Your task to perform on an android device: clear all cookies in the chrome app Image 0: 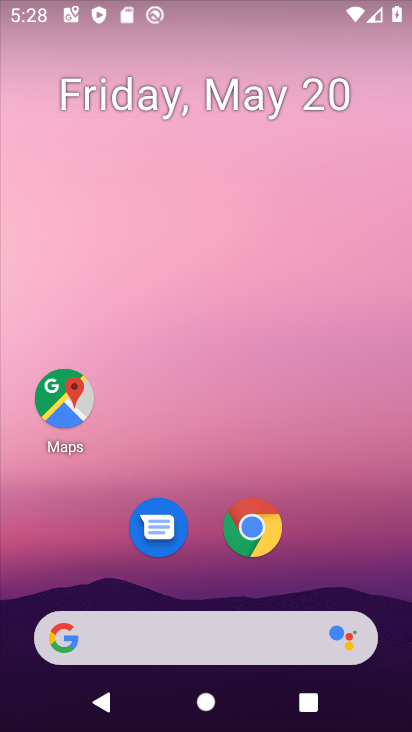
Step 0: drag from (317, 620) to (362, 43)
Your task to perform on an android device: clear all cookies in the chrome app Image 1: 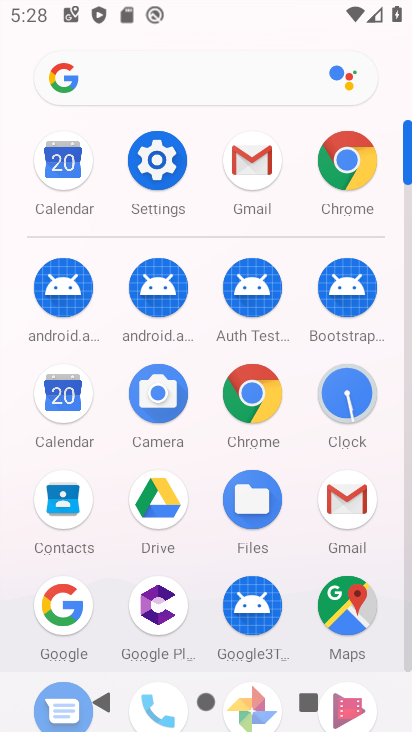
Step 1: click (260, 404)
Your task to perform on an android device: clear all cookies in the chrome app Image 2: 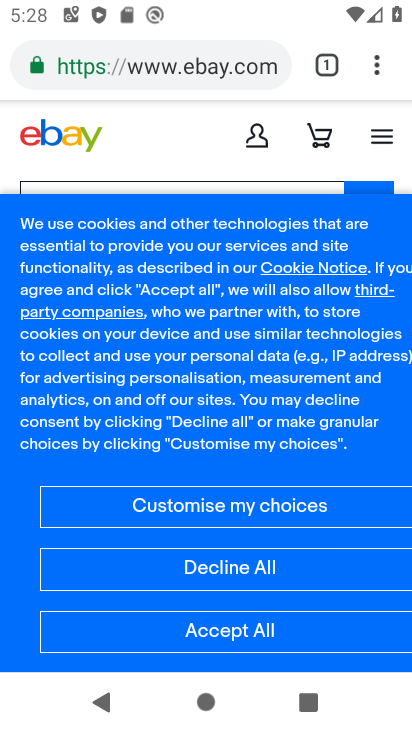
Step 2: press back button
Your task to perform on an android device: clear all cookies in the chrome app Image 3: 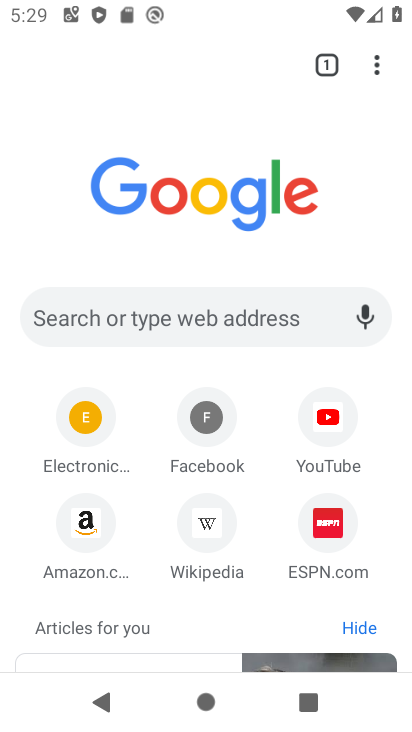
Step 3: drag from (375, 64) to (185, 543)
Your task to perform on an android device: clear all cookies in the chrome app Image 4: 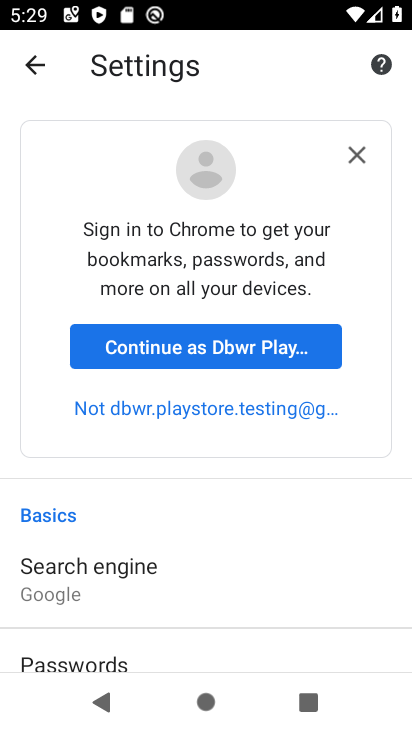
Step 4: drag from (222, 613) to (227, 106)
Your task to perform on an android device: clear all cookies in the chrome app Image 5: 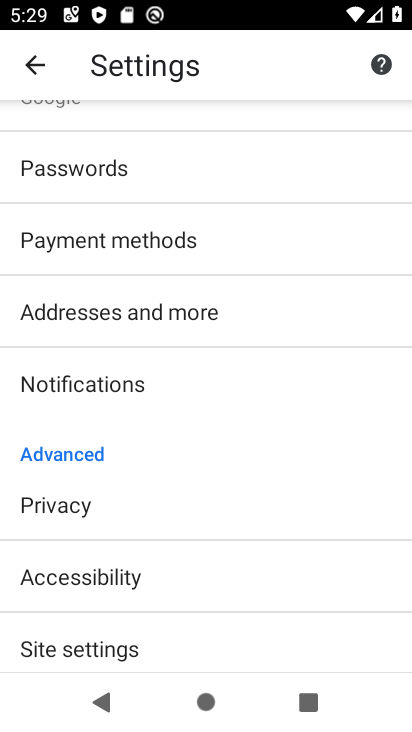
Step 5: click (150, 521)
Your task to perform on an android device: clear all cookies in the chrome app Image 6: 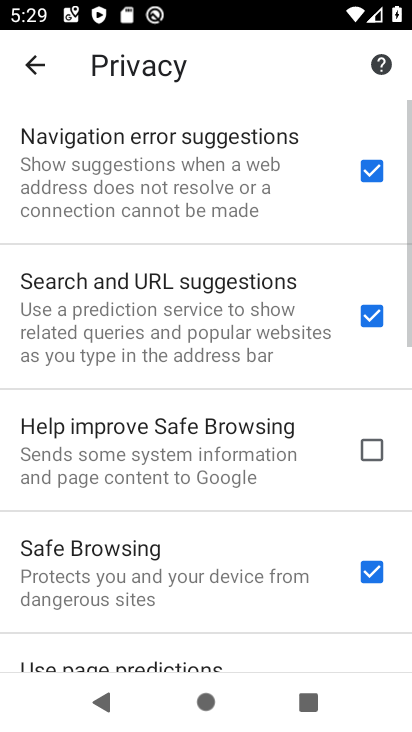
Step 6: drag from (226, 625) to (241, 150)
Your task to perform on an android device: clear all cookies in the chrome app Image 7: 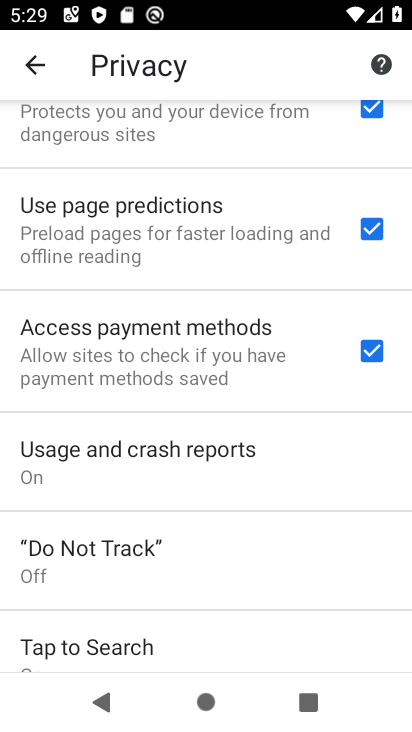
Step 7: drag from (192, 646) to (156, 128)
Your task to perform on an android device: clear all cookies in the chrome app Image 8: 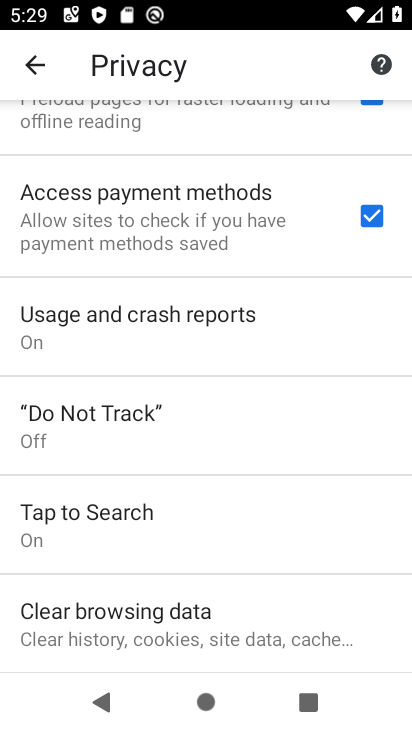
Step 8: click (212, 640)
Your task to perform on an android device: clear all cookies in the chrome app Image 9: 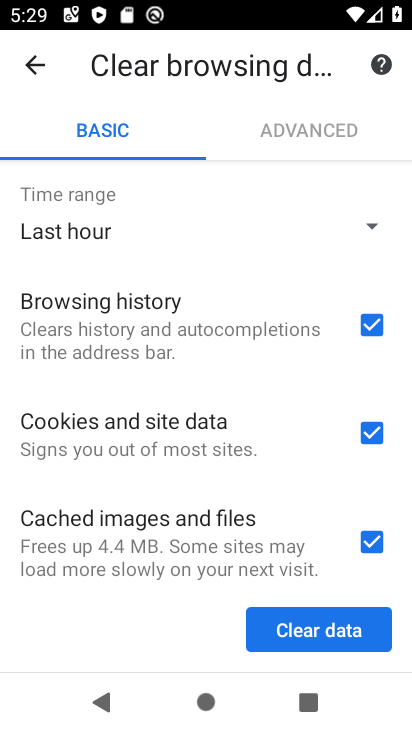
Step 9: click (342, 635)
Your task to perform on an android device: clear all cookies in the chrome app Image 10: 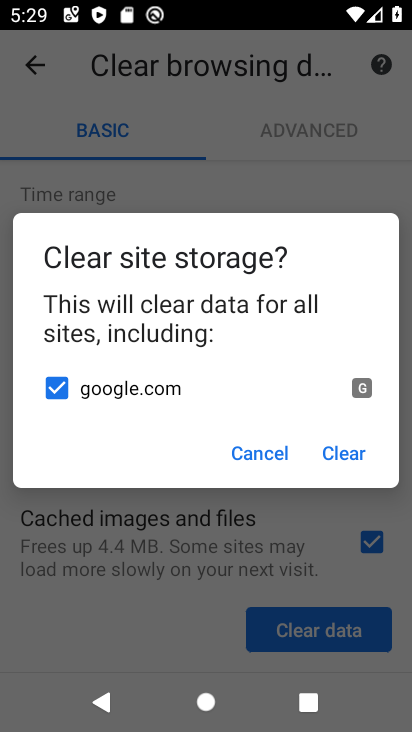
Step 10: click (333, 453)
Your task to perform on an android device: clear all cookies in the chrome app Image 11: 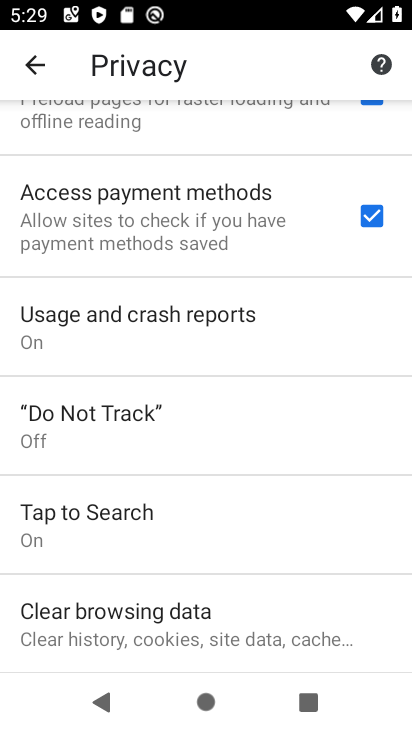
Step 11: task complete